Your task to perform on an android device: change notifications settings Image 0: 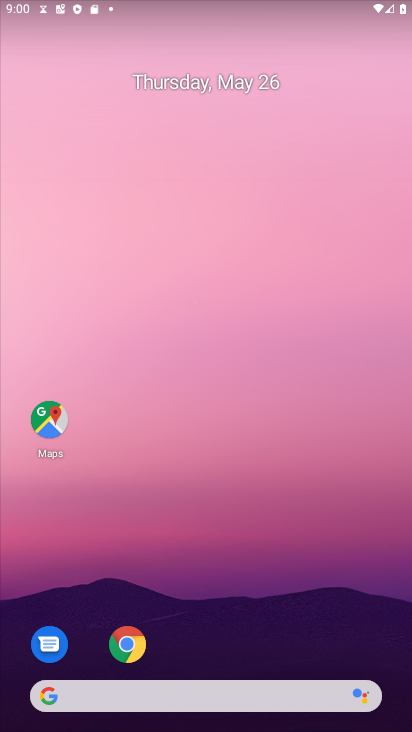
Step 0: drag from (246, 558) to (305, 46)
Your task to perform on an android device: change notifications settings Image 1: 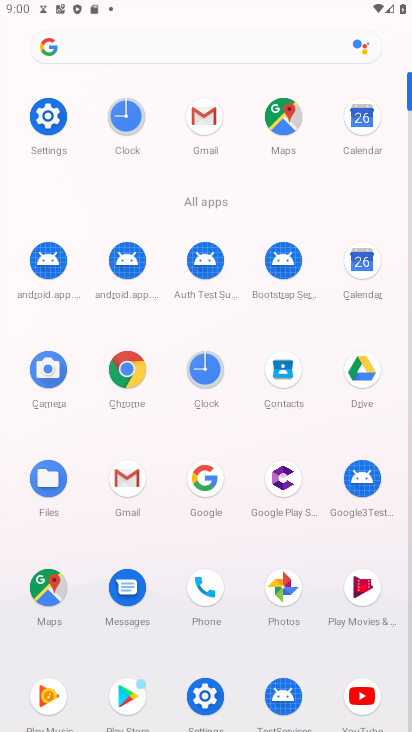
Step 1: click (41, 122)
Your task to perform on an android device: change notifications settings Image 2: 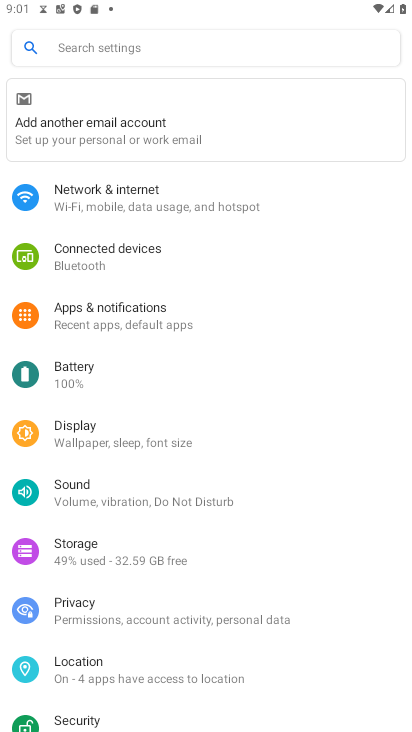
Step 2: click (194, 320)
Your task to perform on an android device: change notifications settings Image 3: 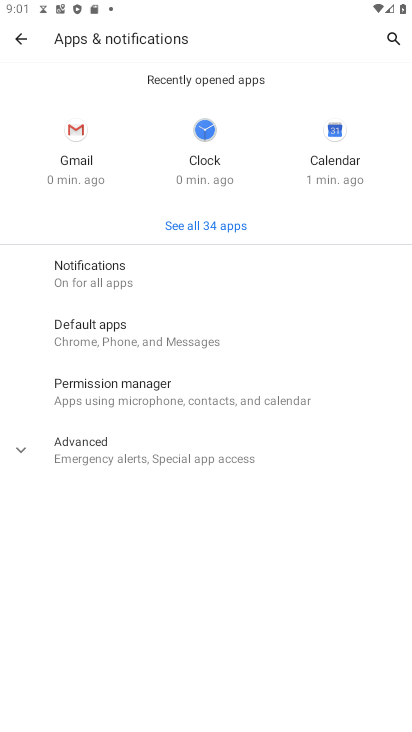
Step 3: click (164, 280)
Your task to perform on an android device: change notifications settings Image 4: 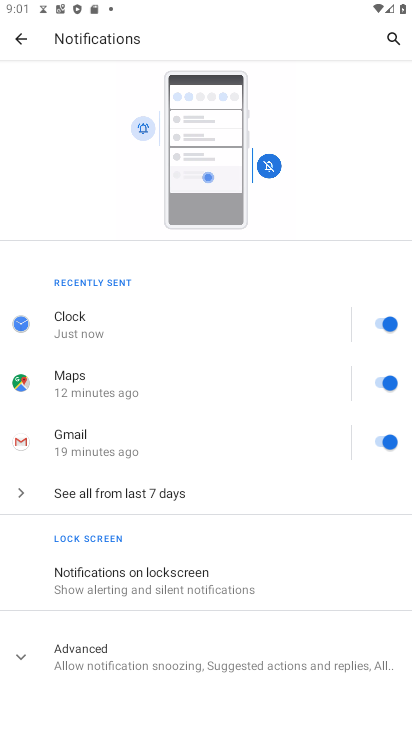
Step 4: drag from (191, 554) to (254, 107)
Your task to perform on an android device: change notifications settings Image 5: 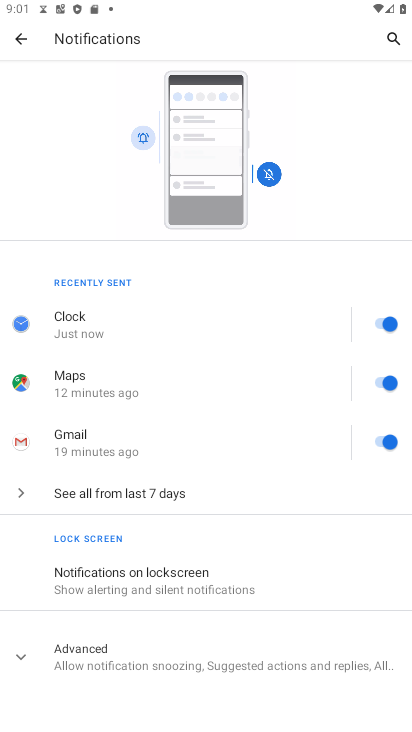
Step 5: drag from (225, 623) to (262, 170)
Your task to perform on an android device: change notifications settings Image 6: 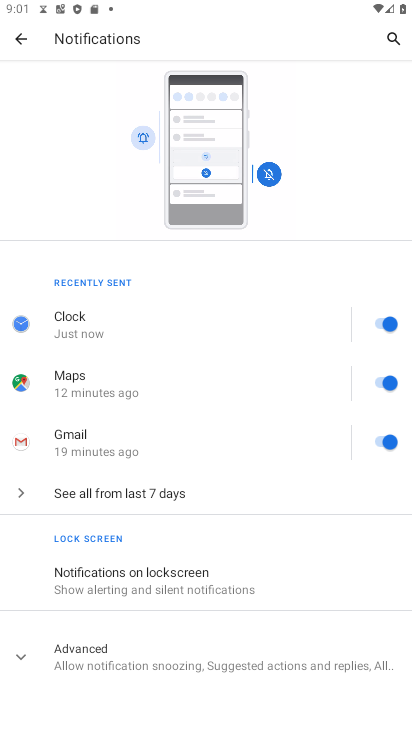
Step 6: click (157, 644)
Your task to perform on an android device: change notifications settings Image 7: 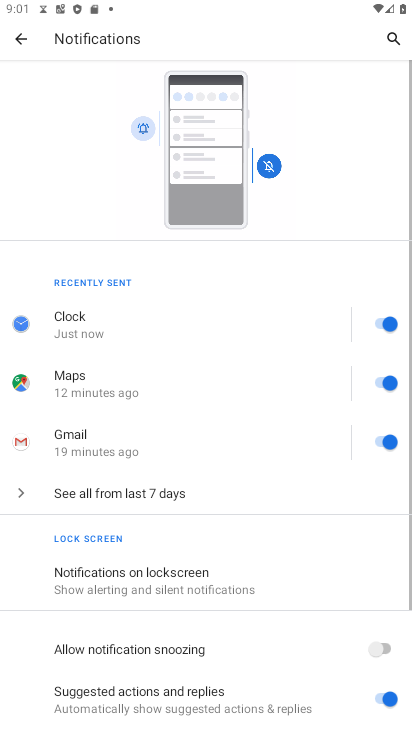
Step 7: task complete